Your task to perform on an android device: add a label to a message in the gmail app Image 0: 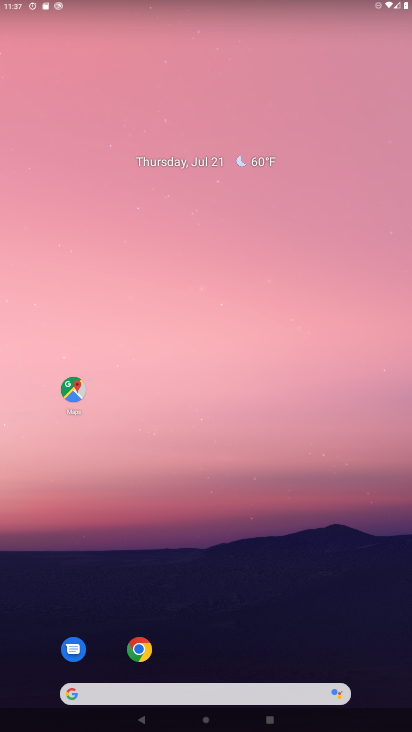
Step 0: drag from (376, 672) to (336, 141)
Your task to perform on an android device: add a label to a message in the gmail app Image 1: 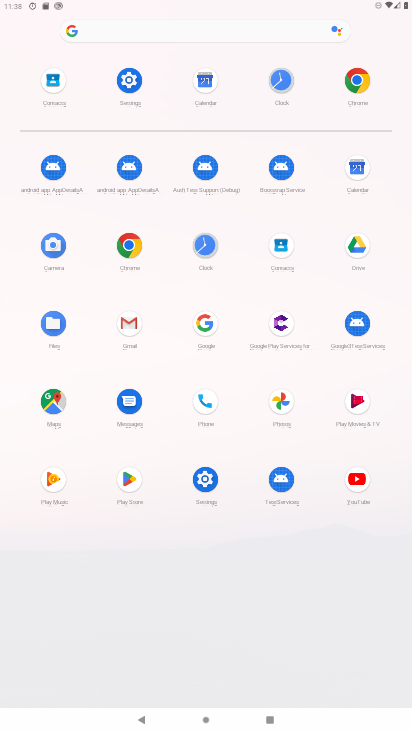
Step 1: click (131, 326)
Your task to perform on an android device: add a label to a message in the gmail app Image 2: 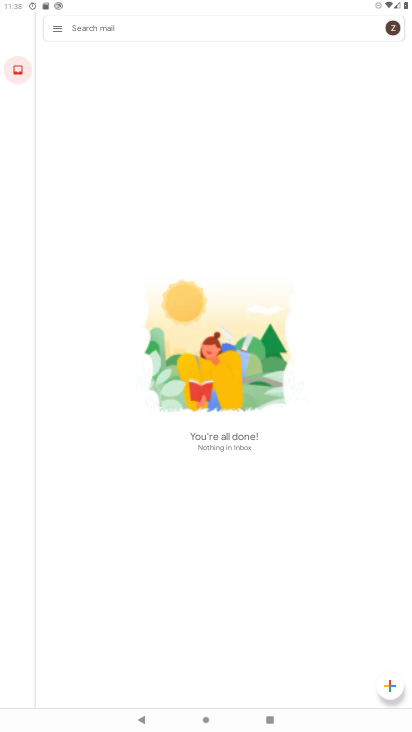
Step 2: task complete